Your task to perform on an android device: change alarm snooze length Image 0: 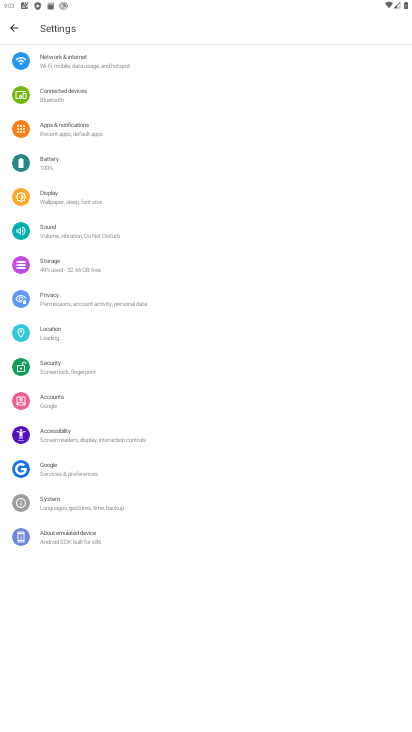
Step 0: press home button
Your task to perform on an android device: change alarm snooze length Image 1: 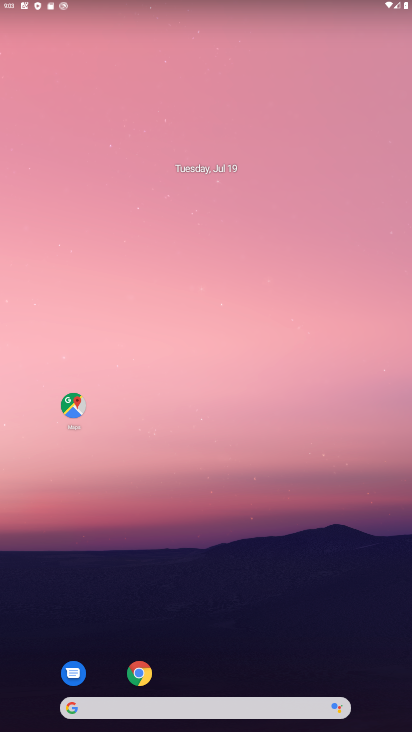
Step 1: drag from (220, 657) to (223, 156)
Your task to perform on an android device: change alarm snooze length Image 2: 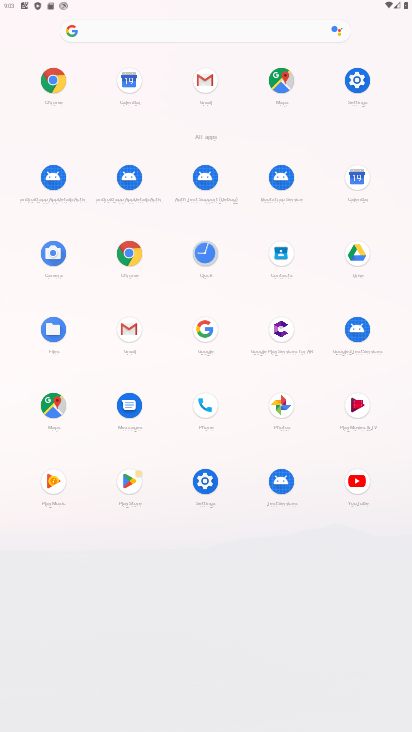
Step 2: click (209, 262)
Your task to perform on an android device: change alarm snooze length Image 3: 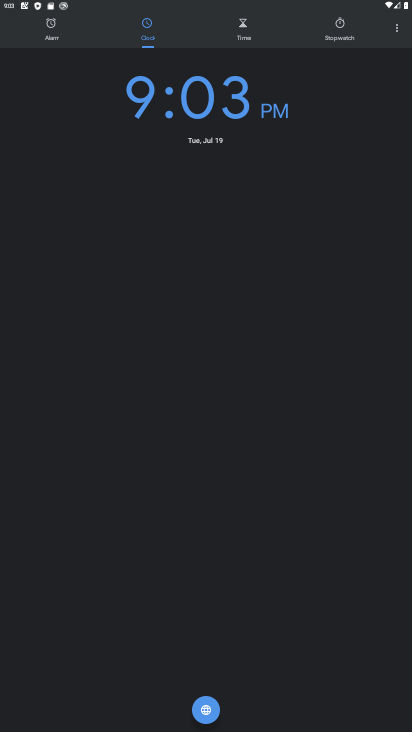
Step 3: click (388, 25)
Your task to perform on an android device: change alarm snooze length Image 4: 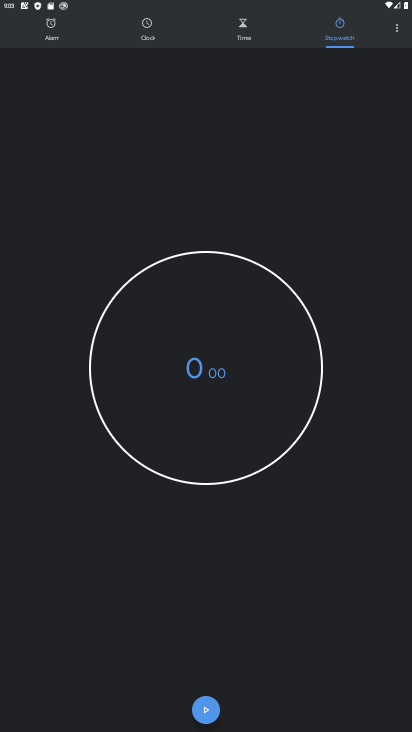
Step 4: click (397, 40)
Your task to perform on an android device: change alarm snooze length Image 5: 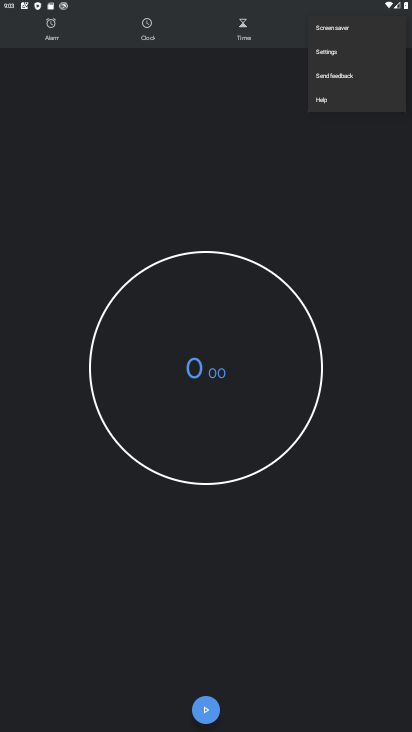
Step 5: click (356, 50)
Your task to perform on an android device: change alarm snooze length Image 6: 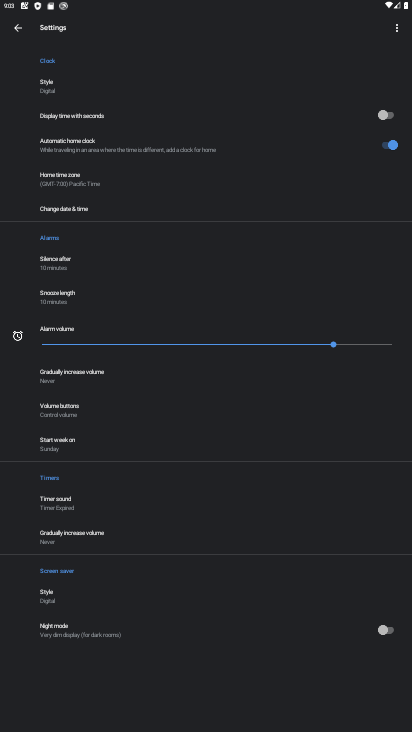
Step 6: click (64, 301)
Your task to perform on an android device: change alarm snooze length Image 7: 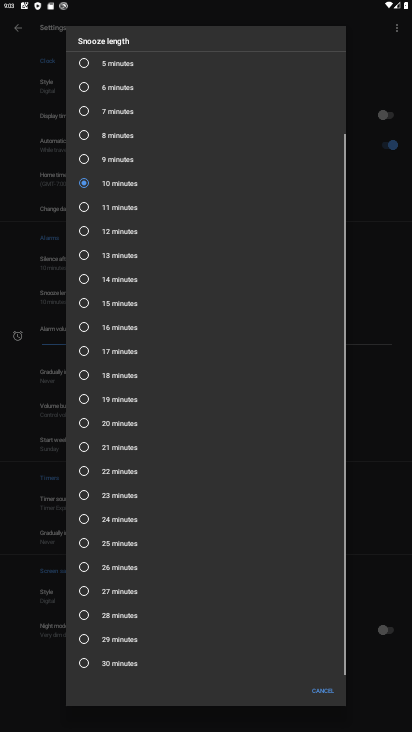
Step 7: click (168, 416)
Your task to perform on an android device: change alarm snooze length Image 8: 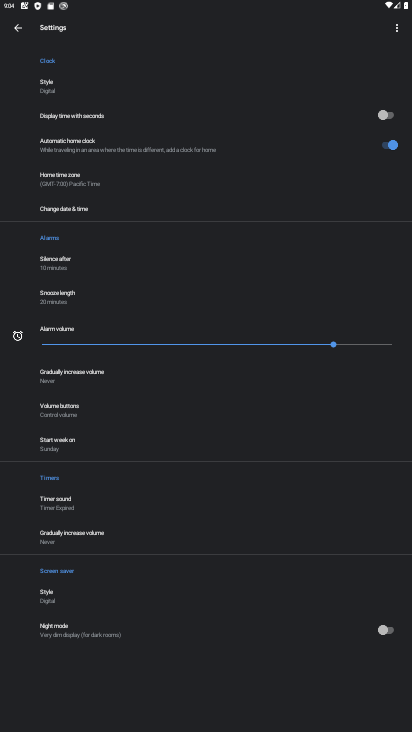
Step 8: task complete